Your task to perform on an android device: Do I have any events tomorrow? Image 0: 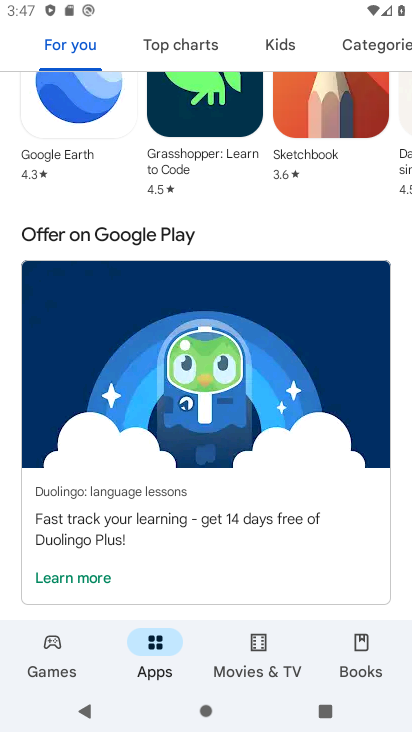
Step 0: press home button
Your task to perform on an android device: Do I have any events tomorrow? Image 1: 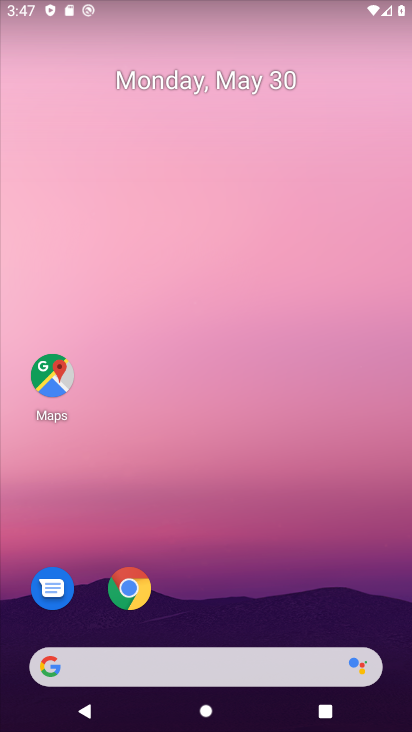
Step 1: drag from (205, 603) to (247, 196)
Your task to perform on an android device: Do I have any events tomorrow? Image 2: 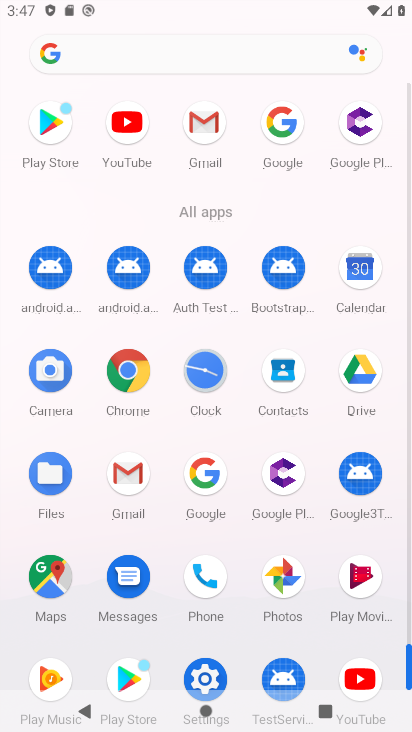
Step 2: click (353, 279)
Your task to perform on an android device: Do I have any events tomorrow? Image 3: 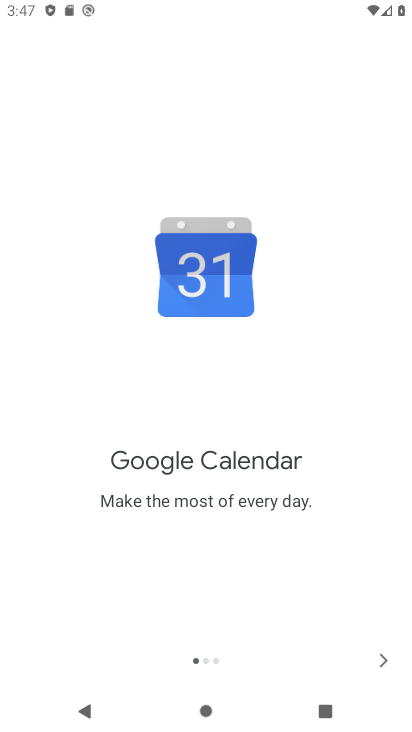
Step 3: click (388, 659)
Your task to perform on an android device: Do I have any events tomorrow? Image 4: 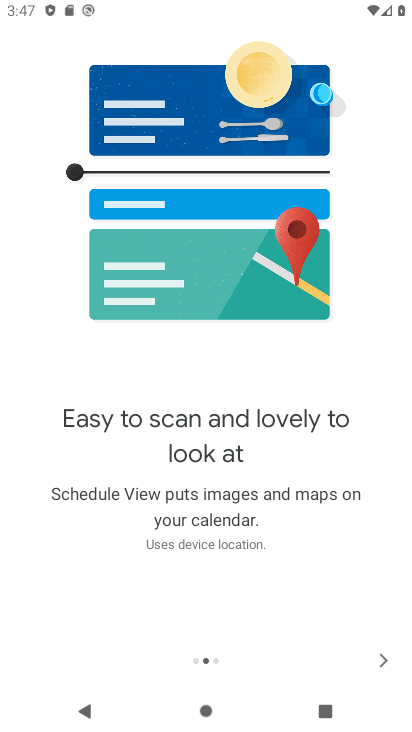
Step 4: click (388, 659)
Your task to perform on an android device: Do I have any events tomorrow? Image 5: 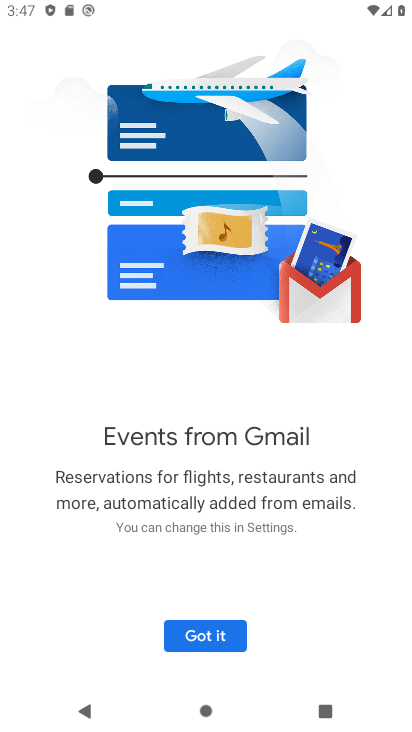
Step 5: click (208, 635)
Your task to perform on an android device: Do I have any events tomorrow? Image 6: 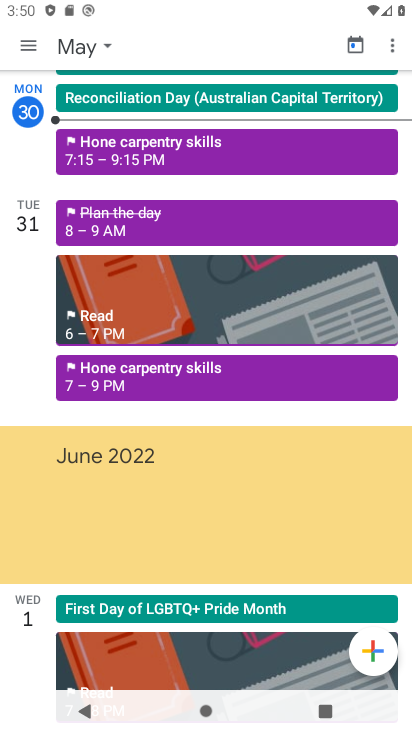
Step 6: click (110, 234)
Your task to perform on an android device: Do I have any events tomorrow? Image 7: 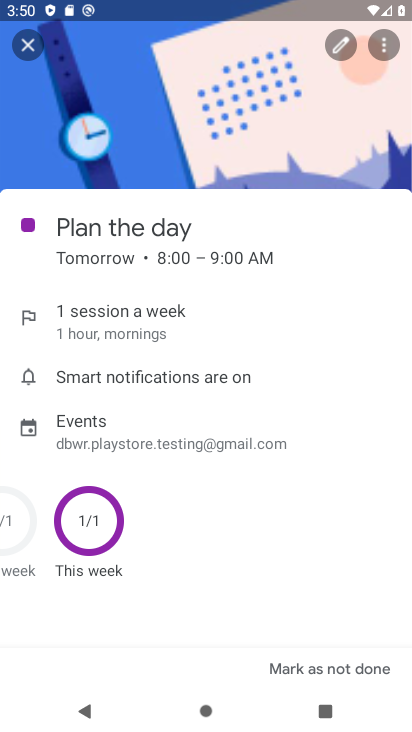
Step 7: task complete